Your task to perform on an android device: change text size in settings app Image 0: 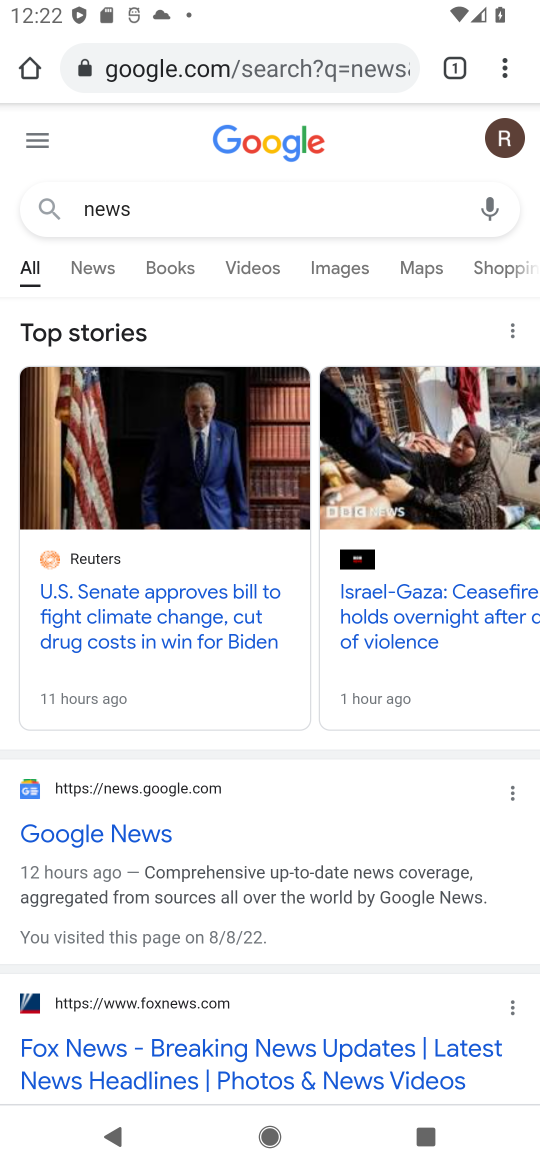
Step 0: press home button
Your task to perform on an android device: change text size in settings app Image 1: 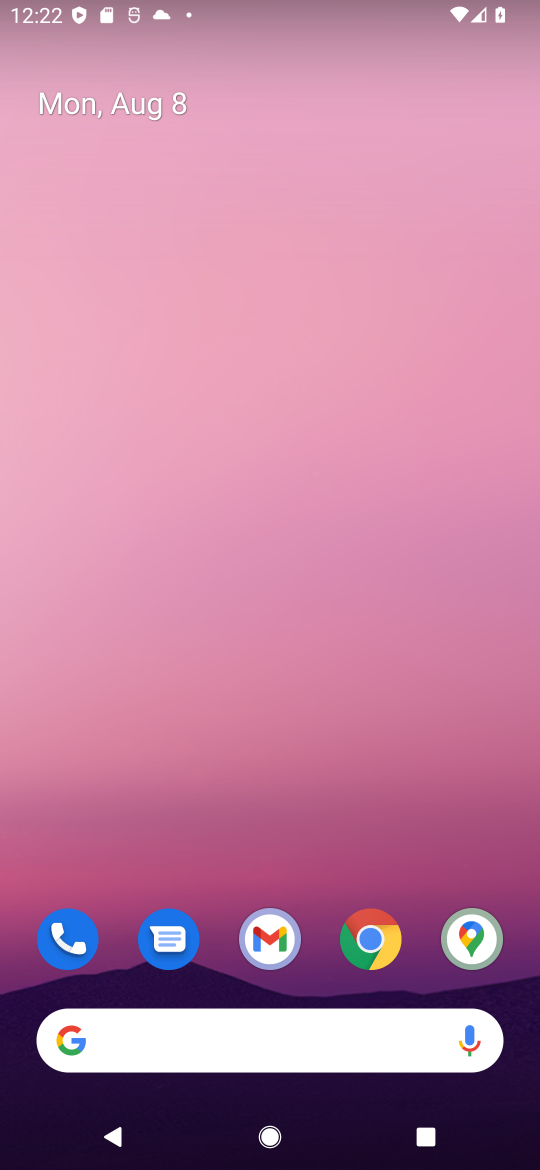
Step 1: drag from (269, 1038) to (298, 578)
Your task to perform on an android device: change text size in settings app Image 2: 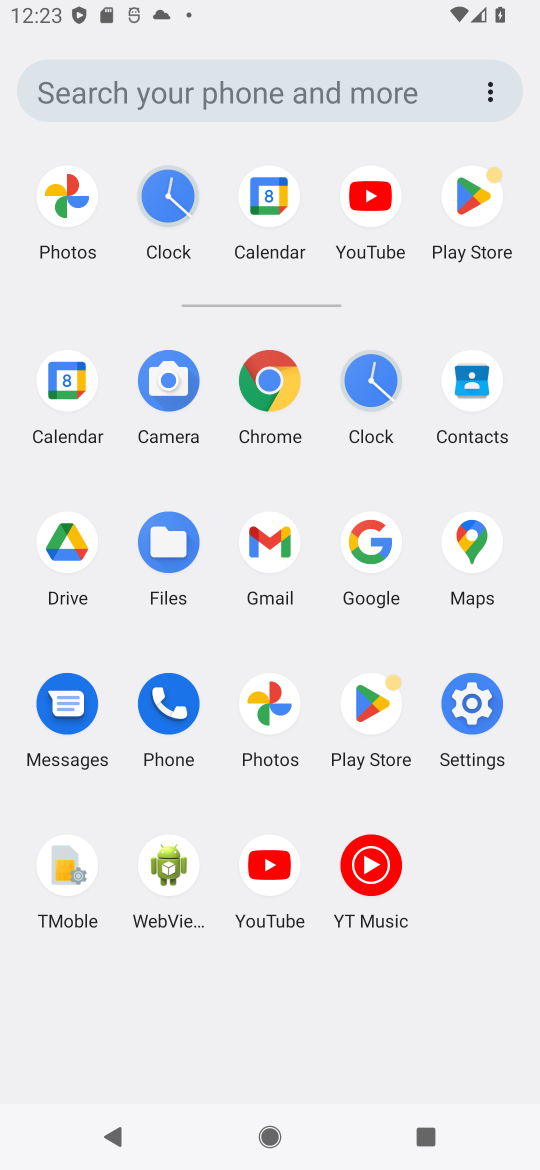
Step 2: click (469, 700)
Your task to perform on an android device: change text size in settings app Image 3: 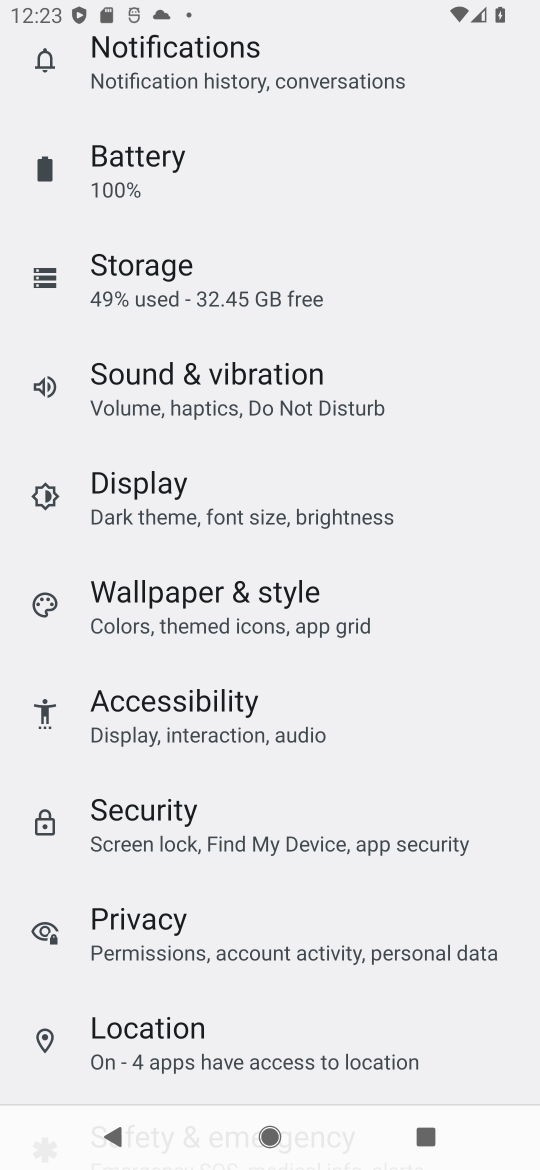
Step 3: click (301, 737)
Your task to perform on an android device: change text size in settings app Image 4: 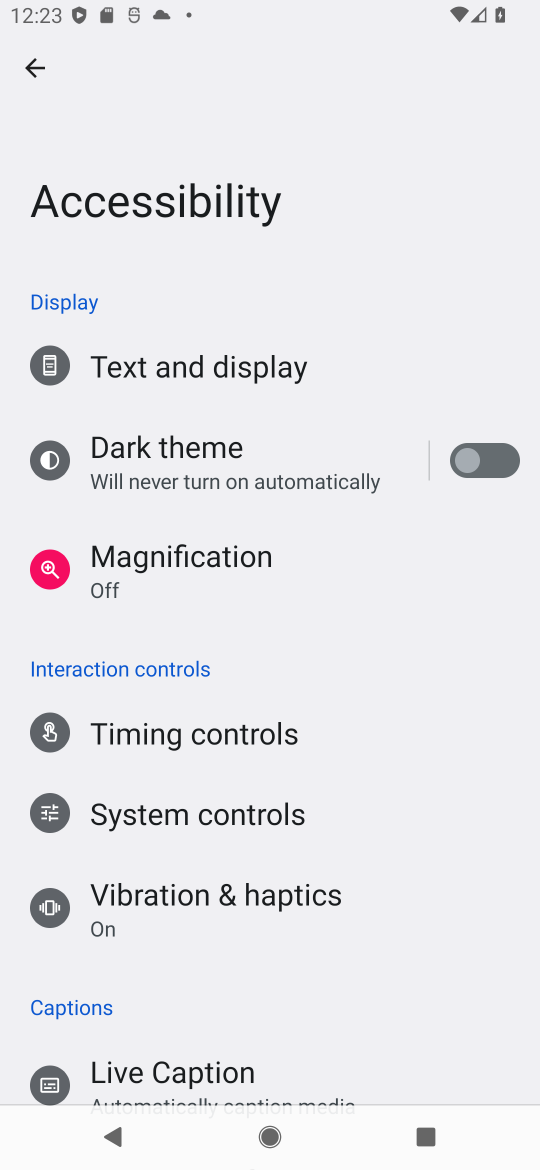
Step 4: click (250, 365)
Your task to perform on an android device: change text size in settings app Image 5: 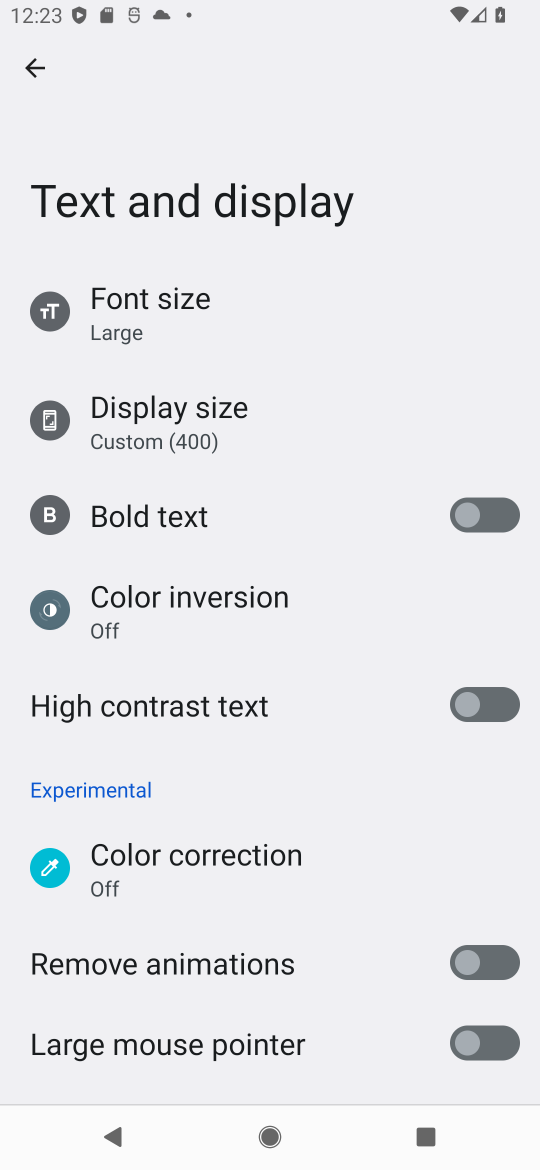
Step 5: click (202, 320)
Your task to perform on an android device: change text size in settings app Image 6: 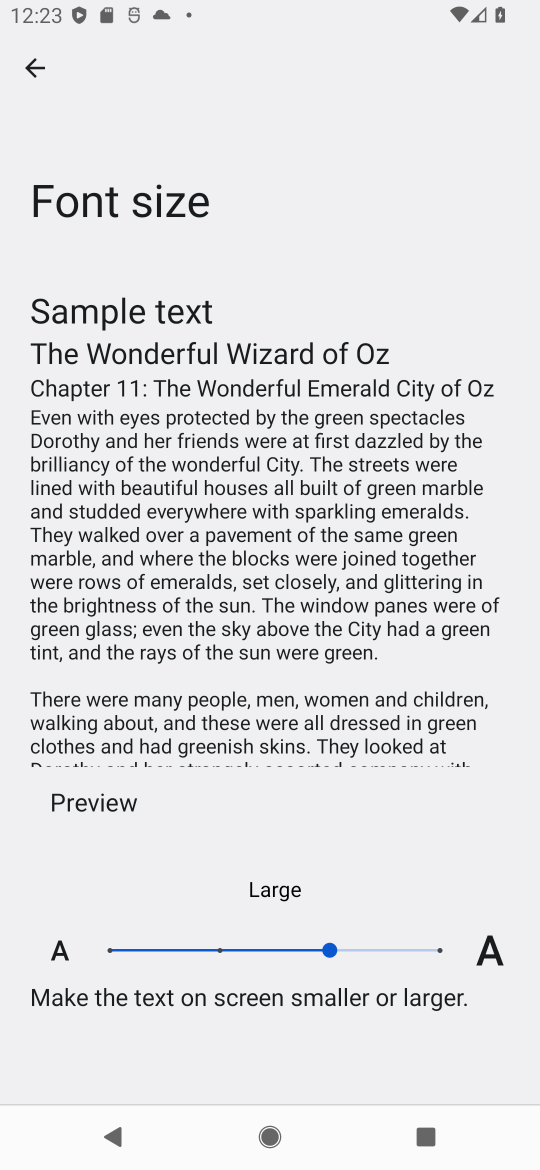
Step 6: click (441, 953)
Your task to perform on an android device: change text size in settings app Image 7: 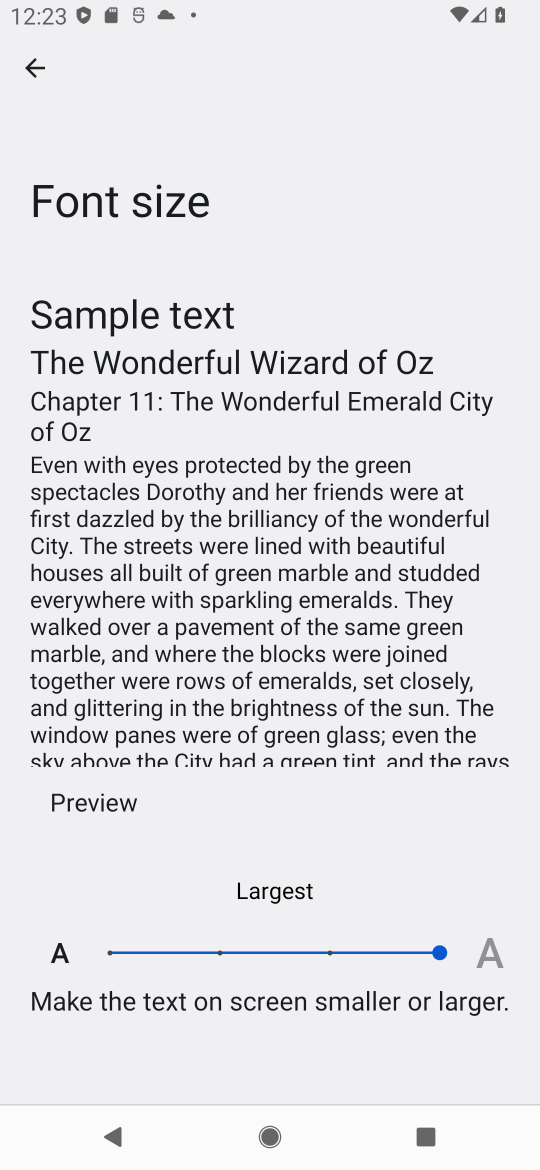
Step 7: task complete